Your task to perform on an android device: Check the weather Image 0: 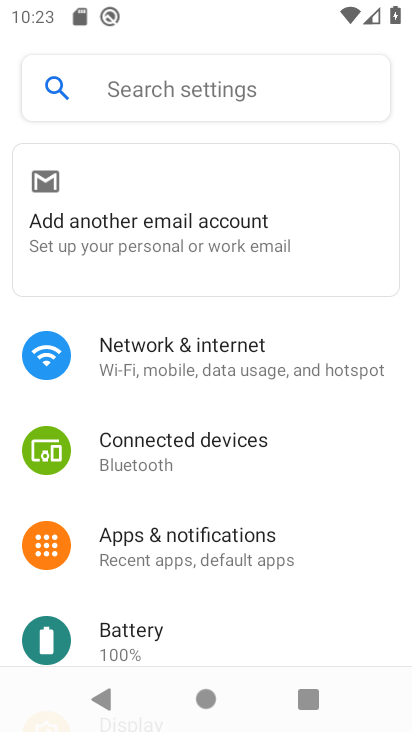
Step 0: press home button
Your task to perform on an android device: Check the weather Image 1: 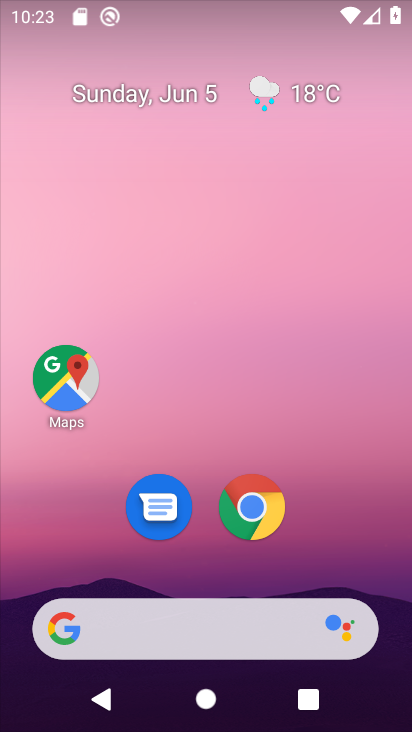
Step 1: click (269, 87)
Your task to perform on an android device: Check the weather Image 2: 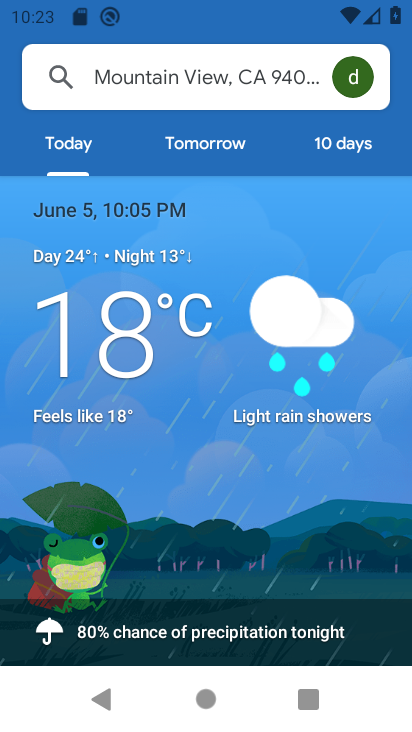
Step 2: task complete